Your task to perform on an android device: Check the news Image 0: 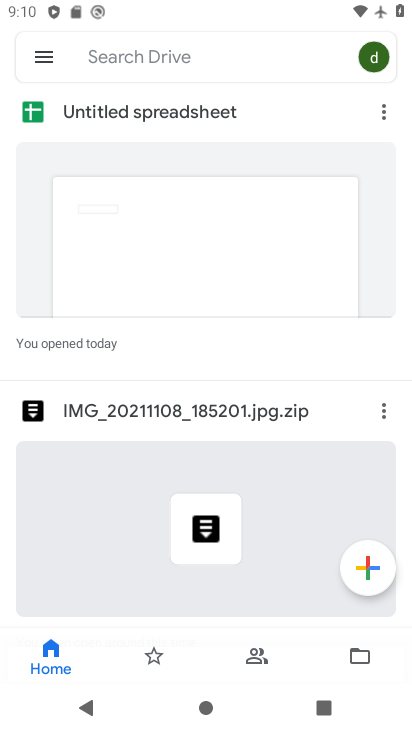
Step 0: press home button
Your task to perform on an android device: Check the news Image 1: 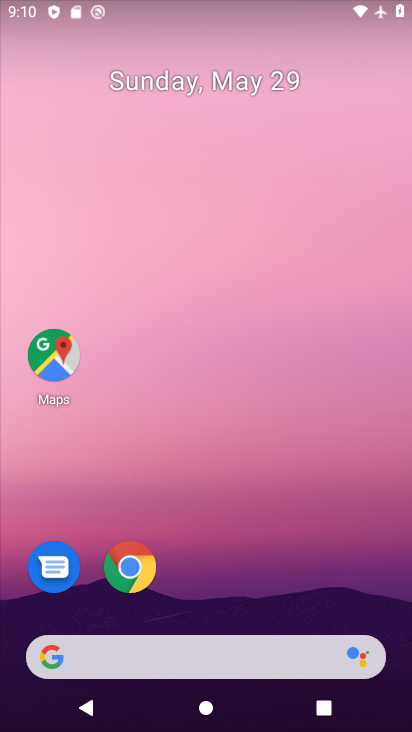
Step 1: task complete